Your task to perform on an android device: Go to Android settings Image 0: 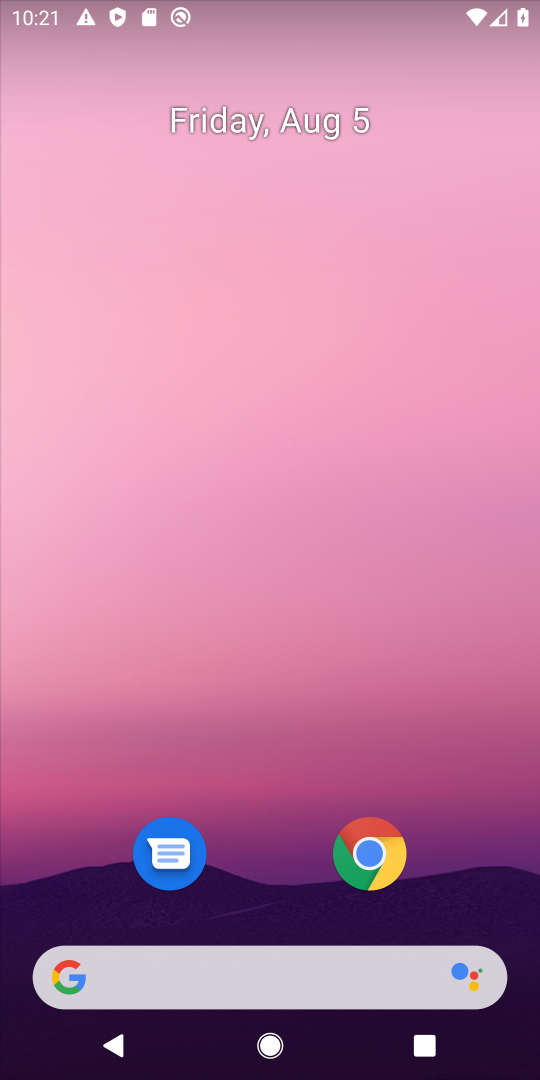
Step 0: drag from (253, 900) to (142, 322)
Your task to perform on an android device: Go to Android settings Image 1: 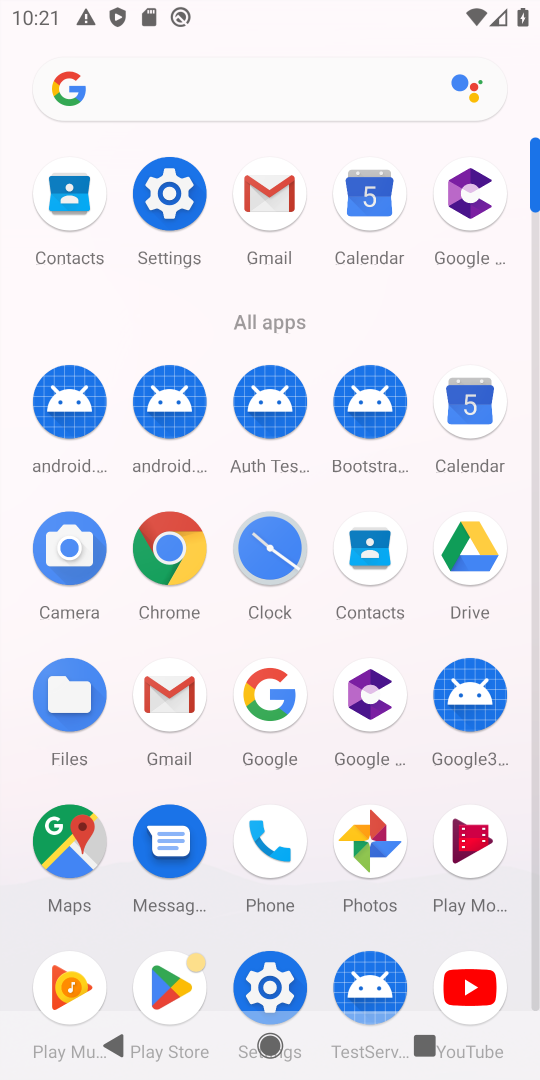
Step 1: click (276, 979)
Your task to perform on an android device: Go to Android settings Image 2: 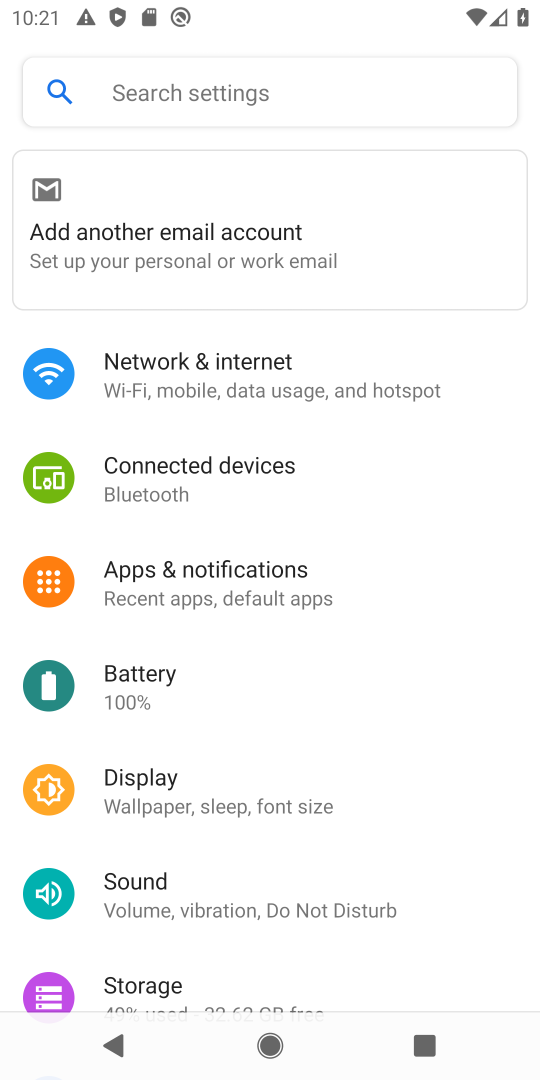
Step 2: drag from (308, 933) to (257, 516)
Your task to perform on an android device: Go to Android settings Image 3: 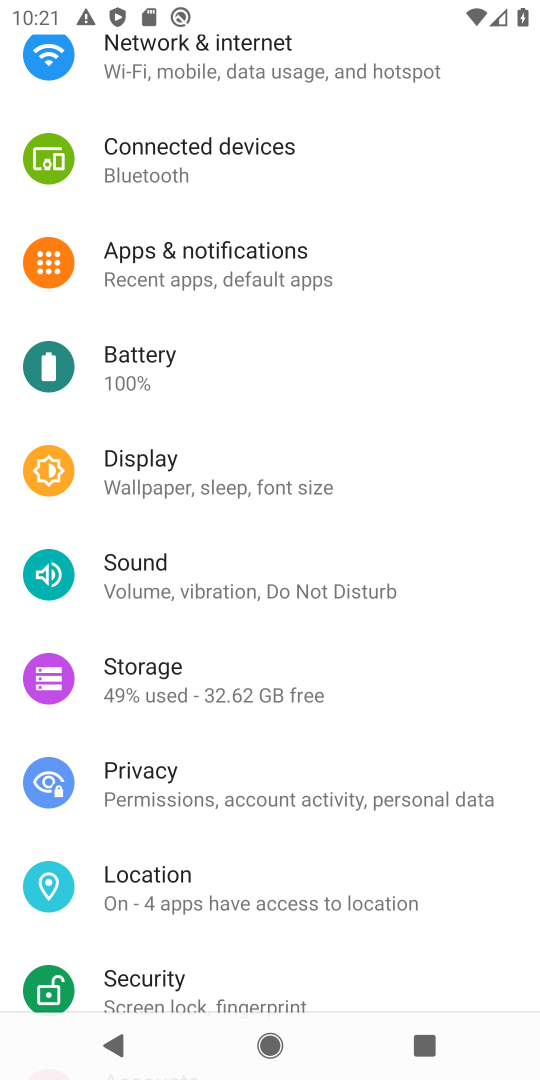
Step 3: drag from (243, 817) to (224, 355)
Your task to perform on an android device: Go to Android settings Image 4: 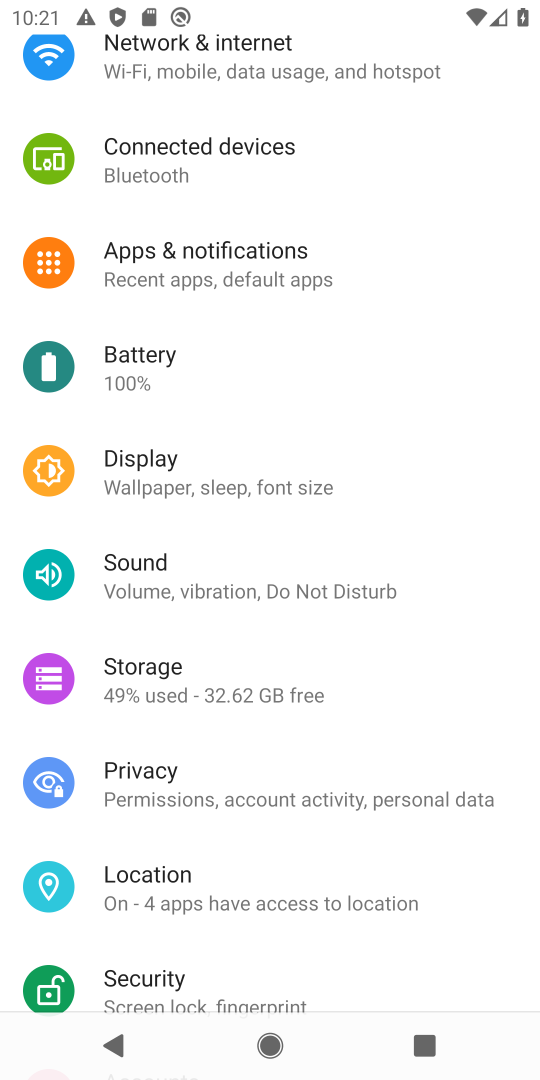
Step 4: drag from (233, 896) to (207, 744)
Your task to perform on an android device: Go to Android settings Image 5: 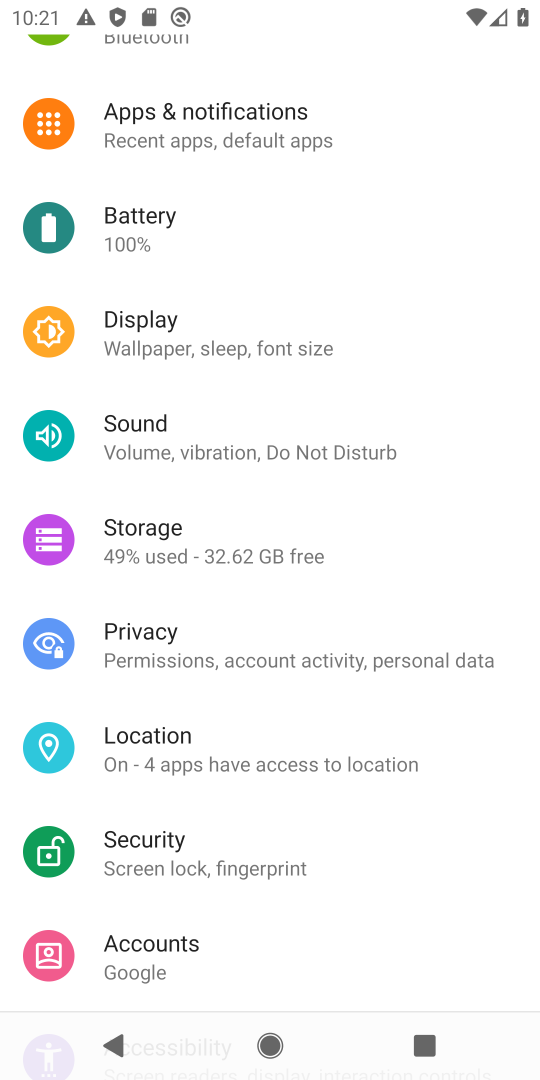
Step 5: drag from (137, 935) to (96, 782)
Your task to perform on an android device: Go to Android settings Image 6: 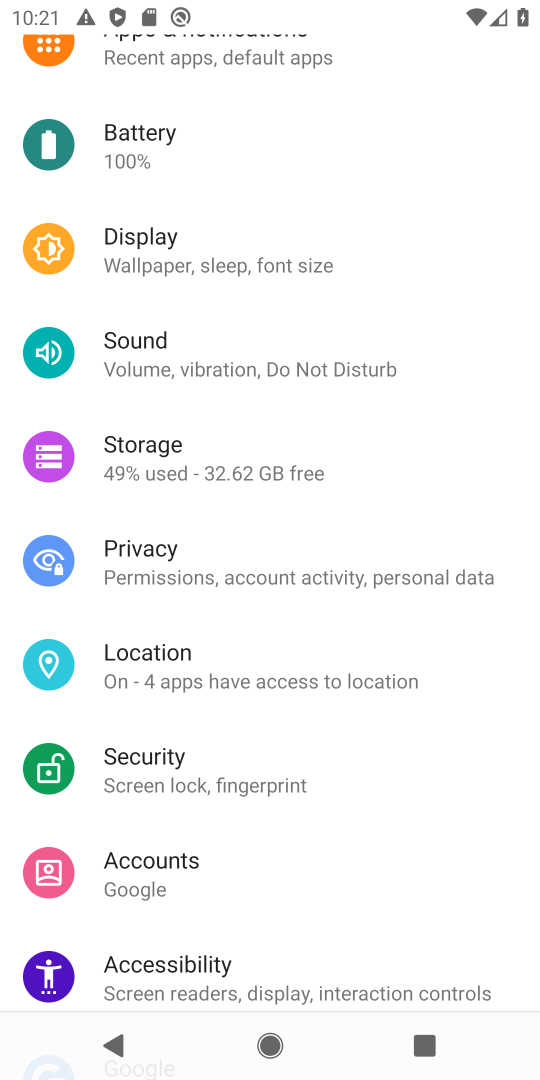
Step 6: drag from (209, 966) to (190, 502)
Your task to perform on an android device: Go to Android settings Image 7: 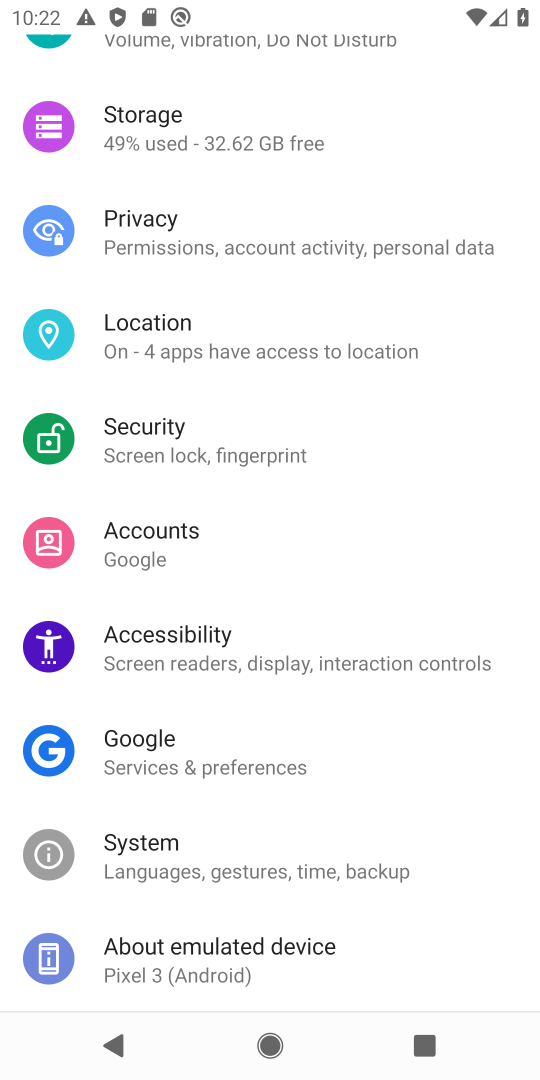
Step 7: click (194, 879)
Your task to perform on an android device: Go to Android settings Image 8: 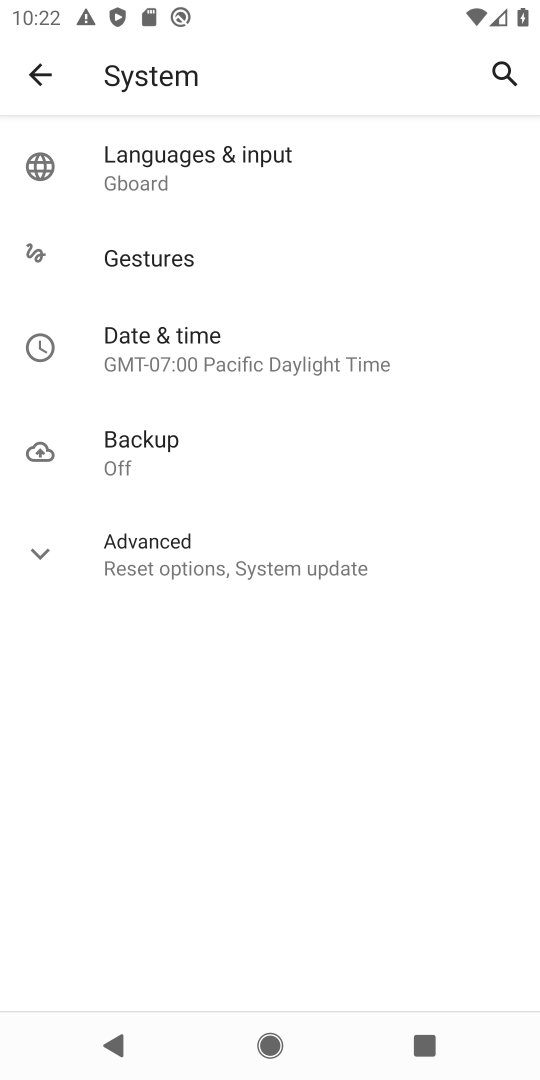
Step 8: task complete